Your task to perform on an android device: Open wifi settings Image 0: 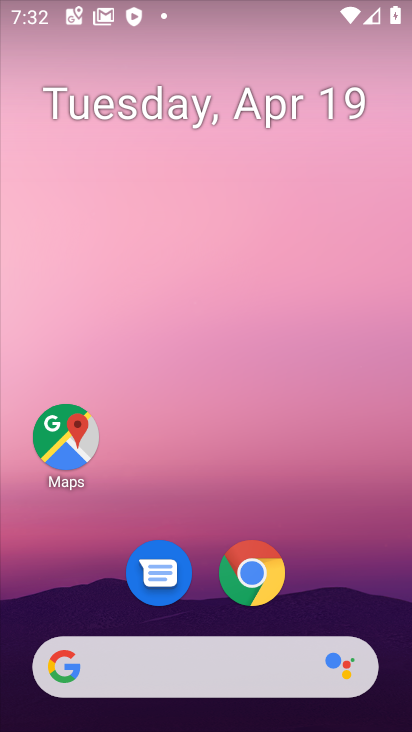
Step 0: drag from (377, 616) to (322, 44)
Your task to perform on an android device: Open wifi settings Image 1: 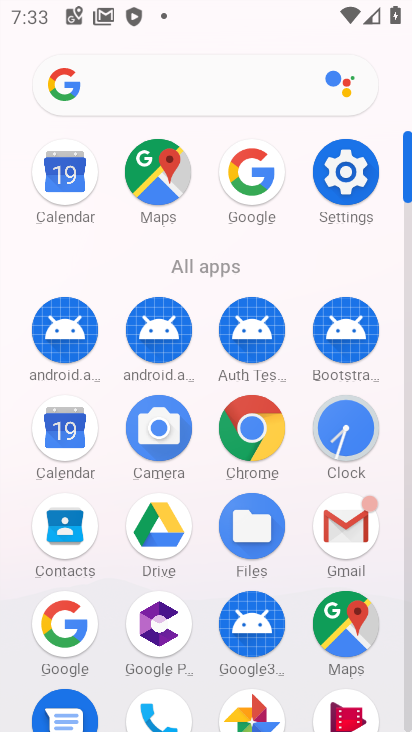
Step 1: click (338, 180)
Your task to perform on an android device: Open wifi settings Image 2: 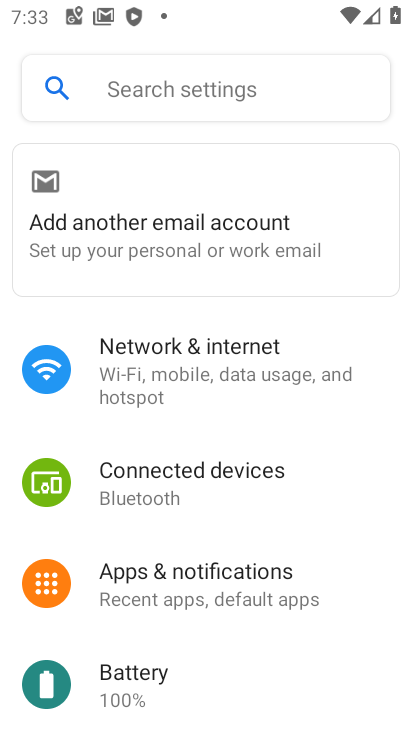
Step 2: click (167, 361)
Your task to perform on an android device: Open wifi settings Image 3: 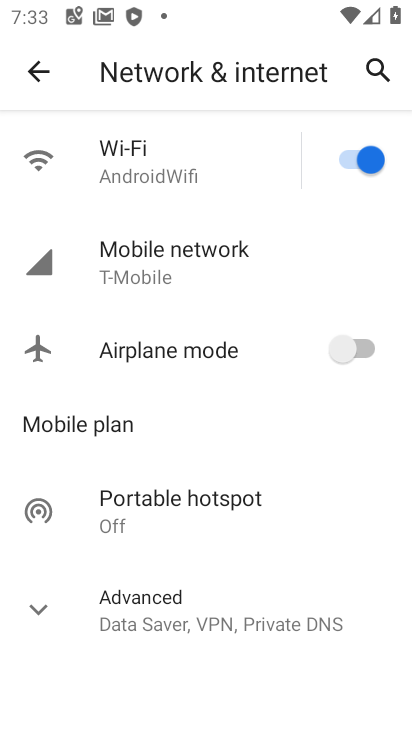
Step 3: click (128, 159)
Your task to perform on an android device: Open wifi settings Image 4: 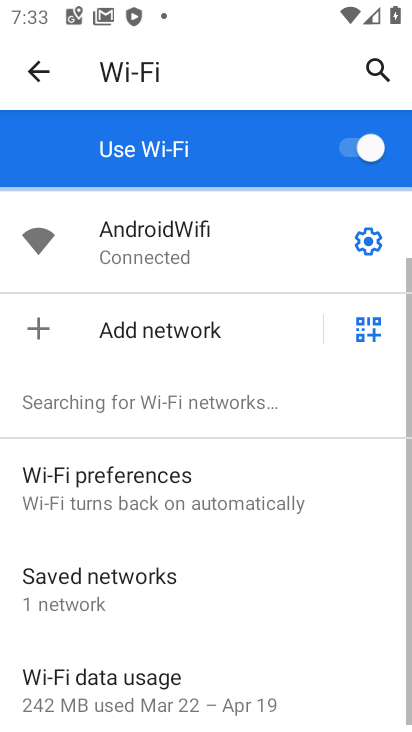
Step 4: click (368, 241)
Your task to perform on an android device: Open wifi settings Image 5: 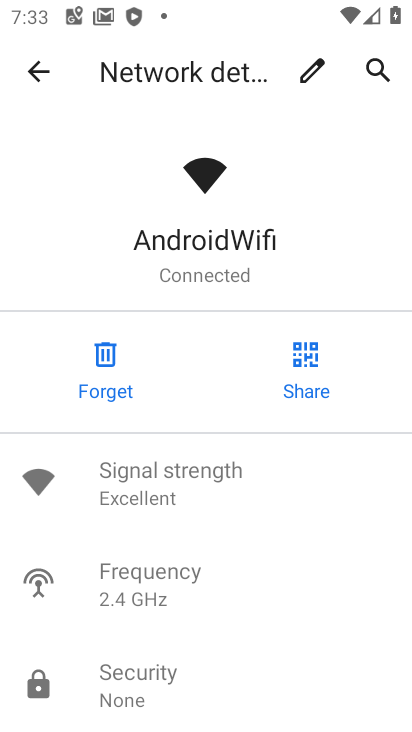
Step 5: task complete